Your task to perform on an android device: Go to sound settings Image 0: 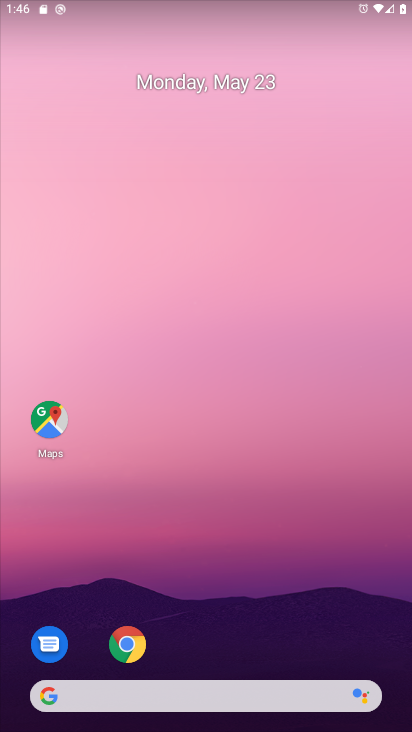
Step 0: drag from (205, 643) to (119, 226)
Your task to perform on an android device: Go to sound settings Image 1: 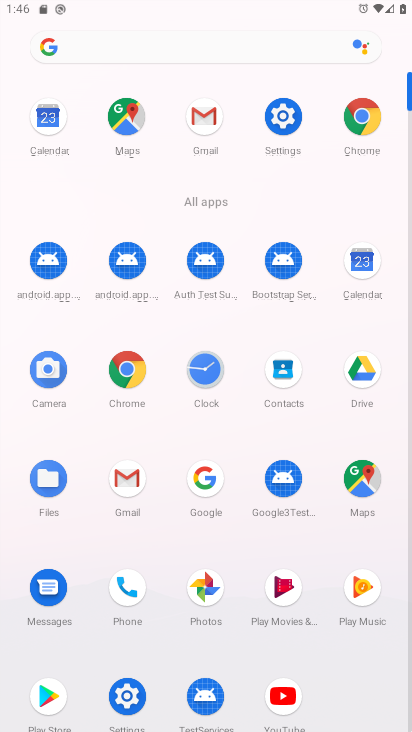
Step 1: click (276, 123)
Your task to perform on an android device: Go to sound settings Image 2: 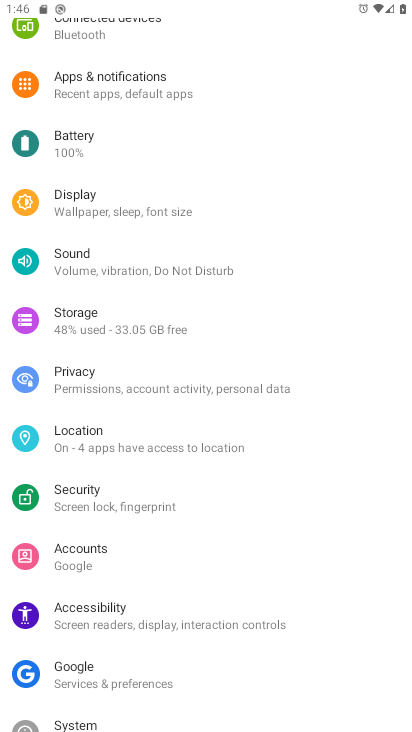
Step 2: click (90, 258)
Your task to perform on an android device: Go to sound settings Image 3: 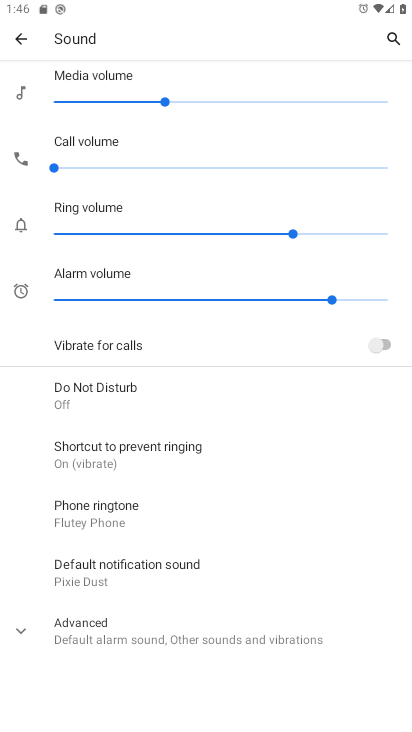
Step 3: task complete